Your task to perform on an android device: Go to ESPN.com Image 0: 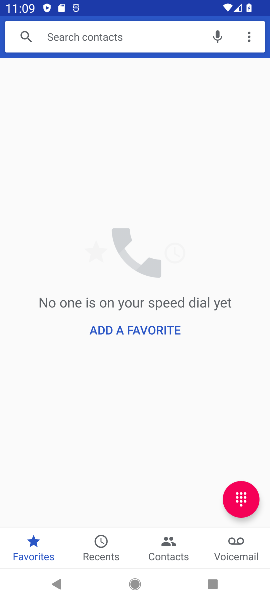
Step 0: press back button
Your task to perform on an android device: Go to ESPN.com Image 1: 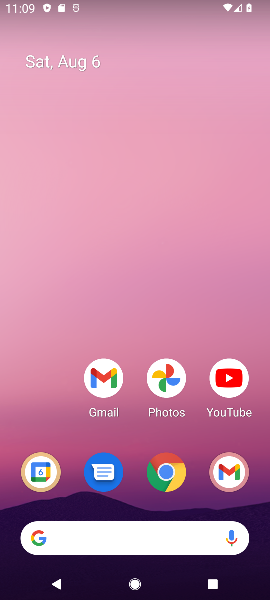
Step 1: drag from (164, 548) to (160, 257)
Your task to perform on an android device: Go to ESPN.com Image 2: 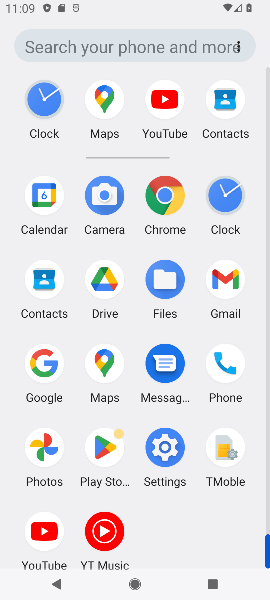
Step 2: click (180, 202)
Your task to perform on an android device: Go to ESPN.com Image 3: 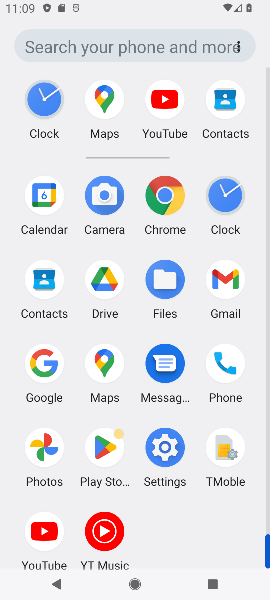
Step 3: click (177, 200)
Your task to perform on an android device: Go to ESPN.com Image 4: 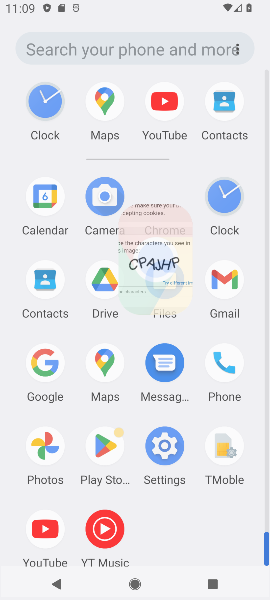
Step 4: click (170, 202)
Your task to perform on an android device: Go to ESPN.com Image 5: 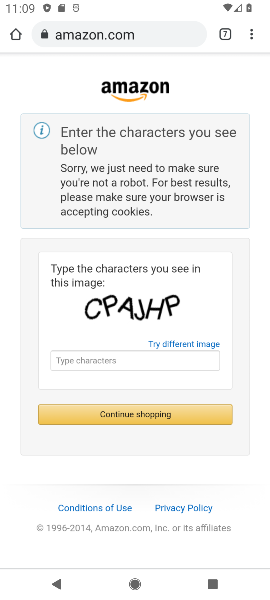
Step 5: click (170, 202)
Your task to perform on an android device: Go to ESPN.com Image 6: 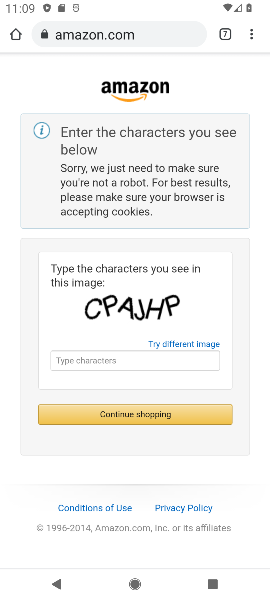
Step 6: click (170, 203)
Your task to perform on an android device: Go to ESPN.com Image 7: 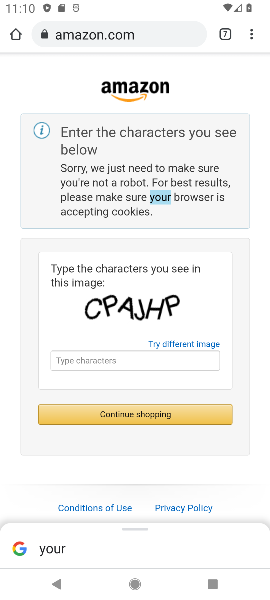
Step 7: press back button
Your task to perform on an android device: Go to ESPN.com Image 8: 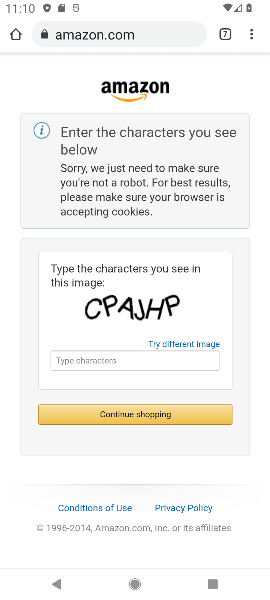
Step 8: press home button
Your task to perform on an android device: Go to ESPN.com Image 9: 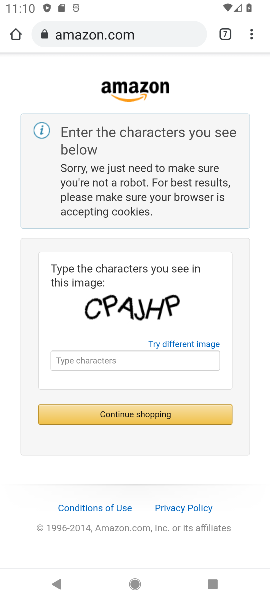
Step 9: press back button
Your task to perform on an android device: Go to ESPN.com Image 10: 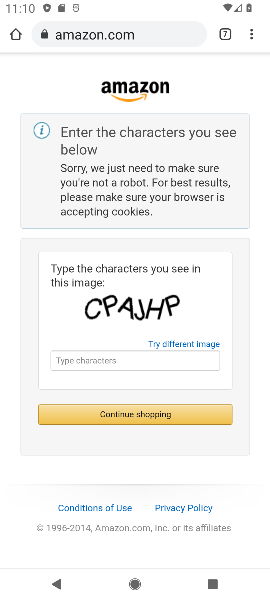
Step 10: press back button
Your task to perform on an android device: Go to ESPN.com Image 11: 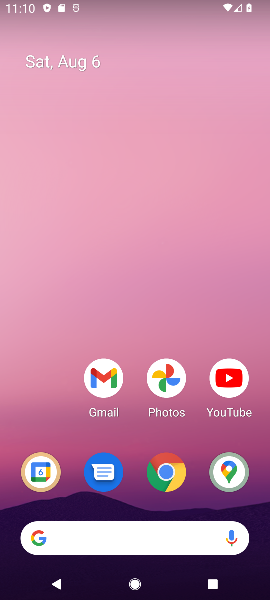
Step 11: drag from (169, 445) to (123, 12)
Your task to perform on an android device: Go to ESPN.com Image 12: 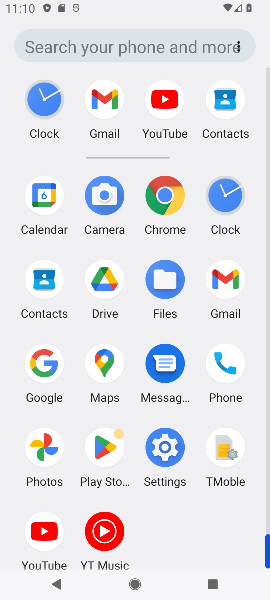
Step 12: click (156, 193)
Your task to perform on an android device: Go to ESPN.com Image 13: 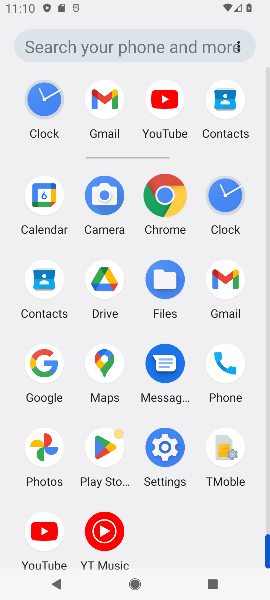
Step 13: click (156, 193)
Your task to perform on an android device: Go to ESPN.com Image 14: 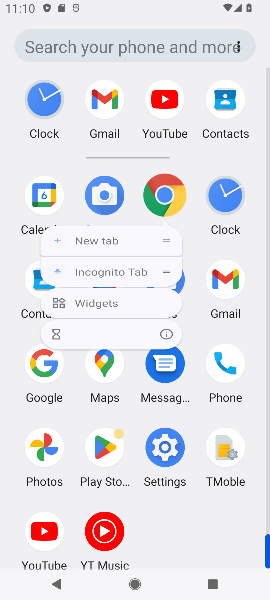
Step 14: click (156, 193)
Your task to perform on an android device: Go to ESPN.com Image 15: 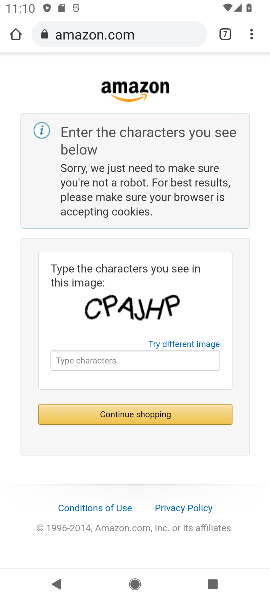
Step 15: click (157, 192)
Your task to perform on an android device: Go to ESPN.com Image 16: 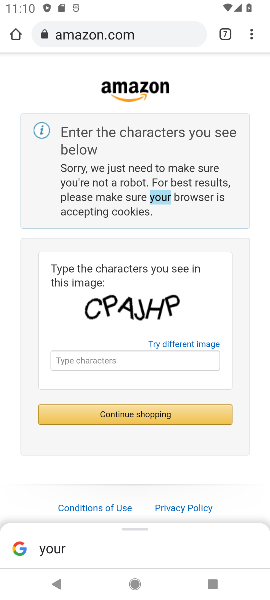
Step 16: drag from (250, 30) to (148, 122)
Your task to perform on an android device: Go to ESPN.com Image 17: 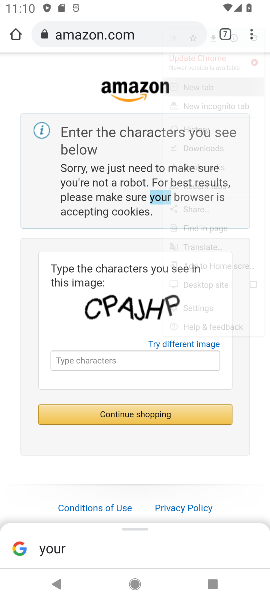
Step 17: click (148, 122)
Your task to perform on an android device: Go to ESPN.com Image 18: 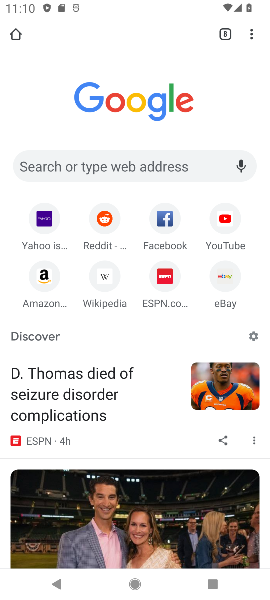
Step 18: click (162, 280)
Your task to perform on an android device: Go to ESPN.com Image 19: 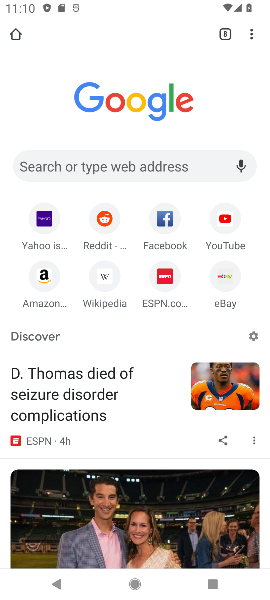
Step 19: click (161, 281)
Your task to perform on an android device: Go to ESPN.com Image 20: 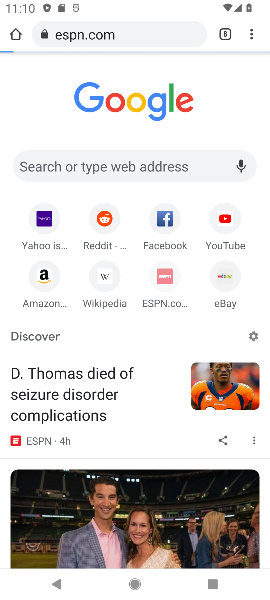
Step 20: click (161, 284)
Your task to perform on an android device: Go to ESPN.com Image 21: 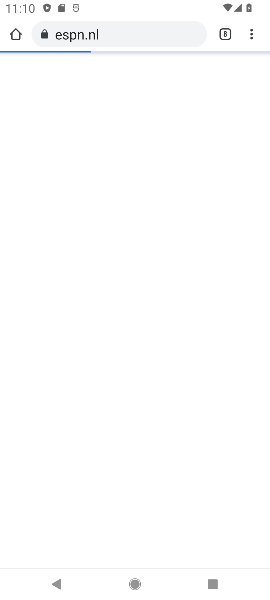
Step 21: task complete